Your task to perform on an android device: Play the last video I watched on Youtube Image 0: 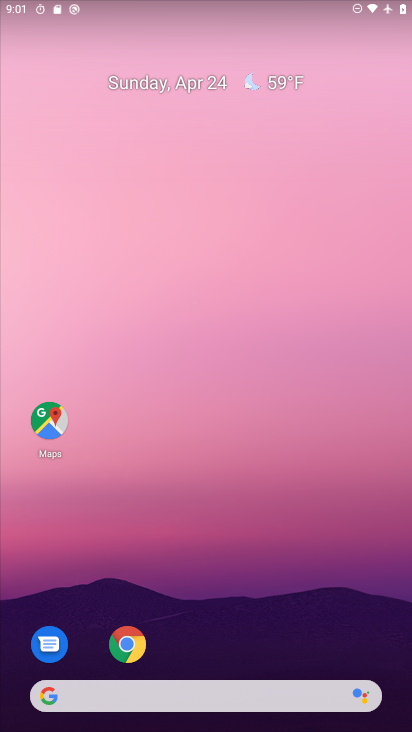
Step 0: drag from (234, 656) to (242, 14)
Your task to perform on an android device: Play the last video I watched on Youtube Image 1: 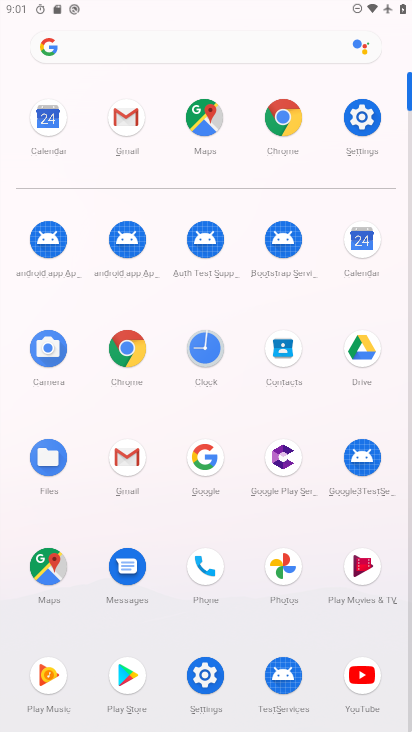
Step 1: click (360, 667)
Your task to perform on an android device: Play the last video I watched on Youtube Image 2: 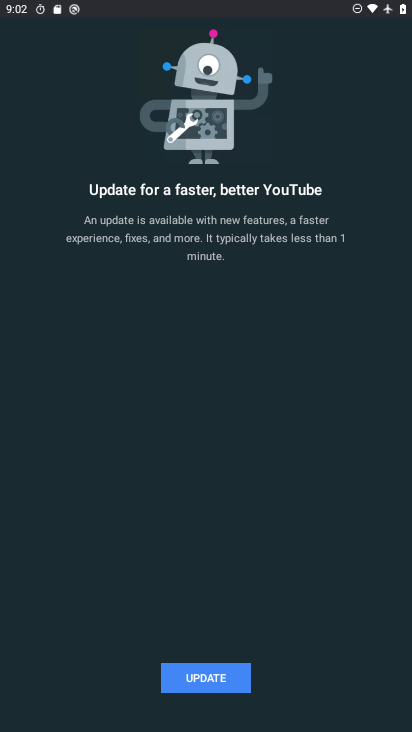
Step 2: press home button
Your task to perform on an android device: Play the last video I watched on Youtube Image 3: 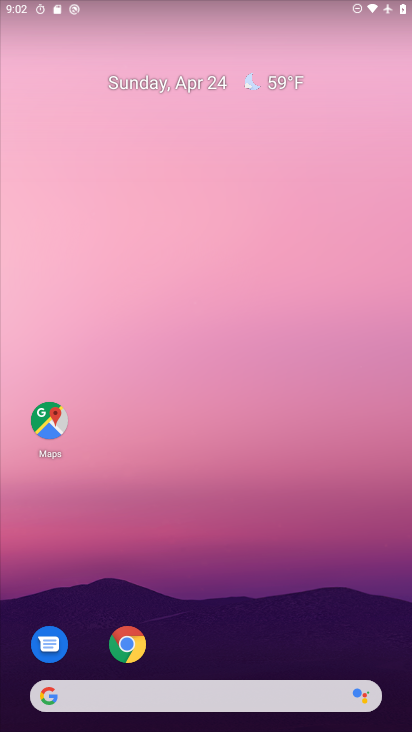
Step 3: drag from (216, 653) to (227, 67)
Your task to perform on an android device: Play the last video I watched on Youtube Image 4: 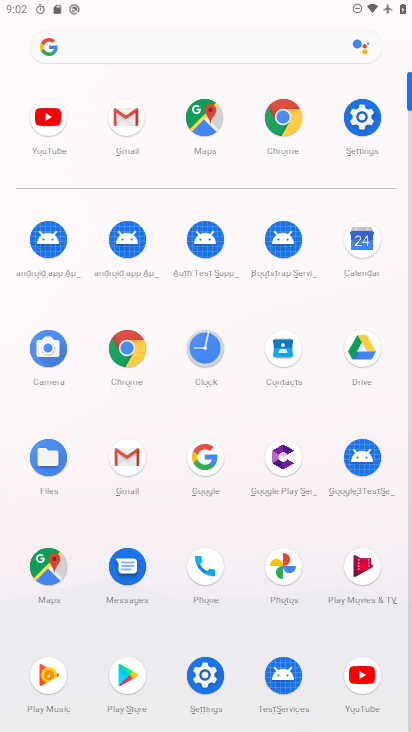
Step 4: click (367, 665)
Your task to perform on an android device: Play the last video I watched on Youtube Image 5: 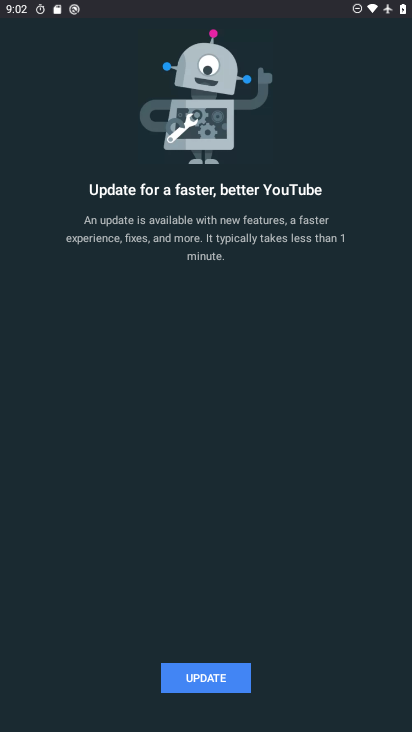
Step 5: click (211, 672)
Your task to perform on an android device: Play the last video I watched on Youtube Image 6: 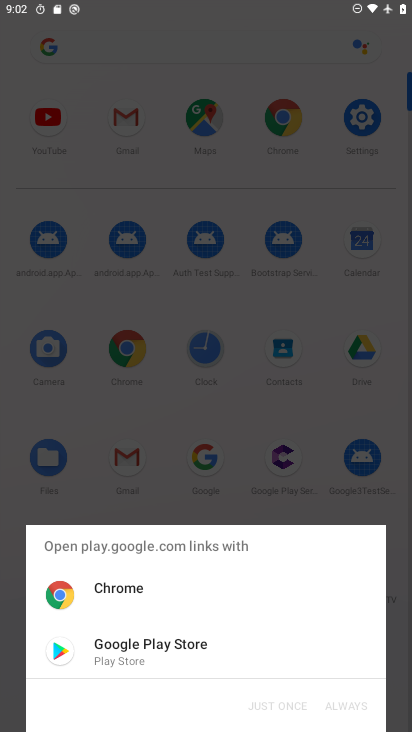
Step 6: click (126, 644)
Your task to perform on an android device: Play the last video I watched on Youtube Image 7: 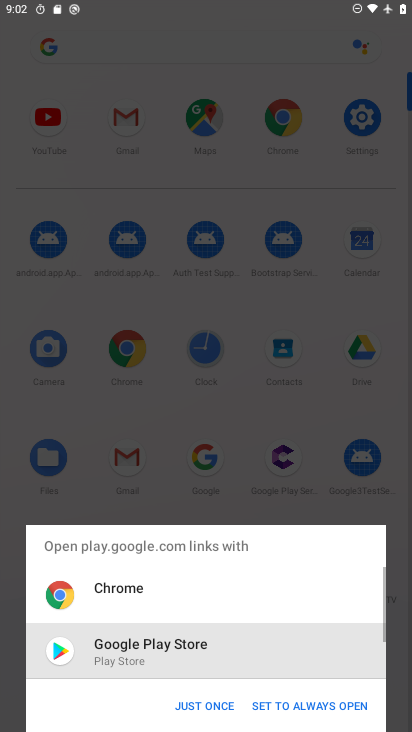
Step 7: click (198, 708)
Your task to perform on an android device: Play the last video I watched on Youtube Image 8: 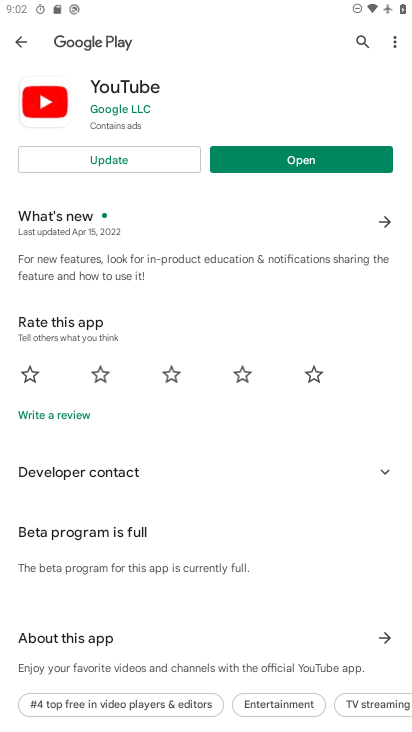
Step 8: click (117, 155)
Your task to perform on an android device: Play the last video I watched on Youtube Image 9: 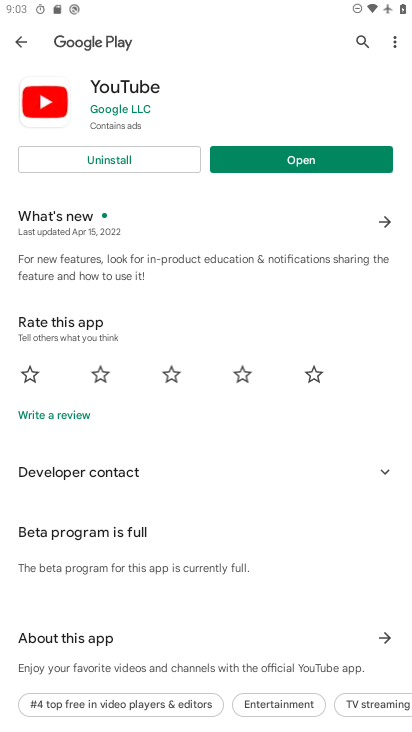
Step 9: click (304, 157)
Your task to perform on an android device: Play the last video I watched on Youtube Image 10: 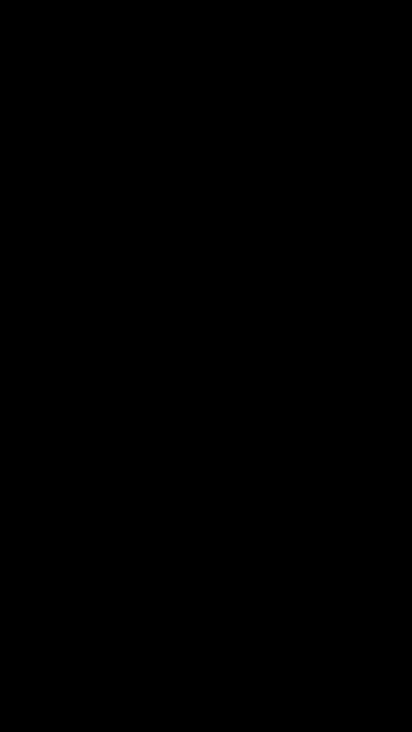
Step 10: task complete